Your task to perform on an android device: toggle javascript in the chrome app Image 0: 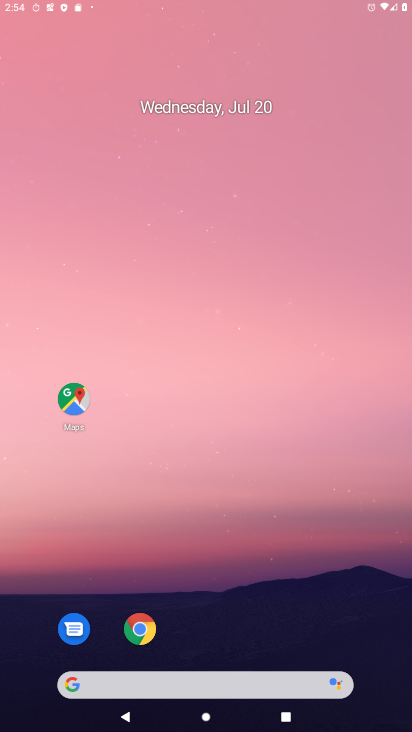
Step 0: press home button
Your task to perform on an android device: toggle javascript in the chrome app Image 1: 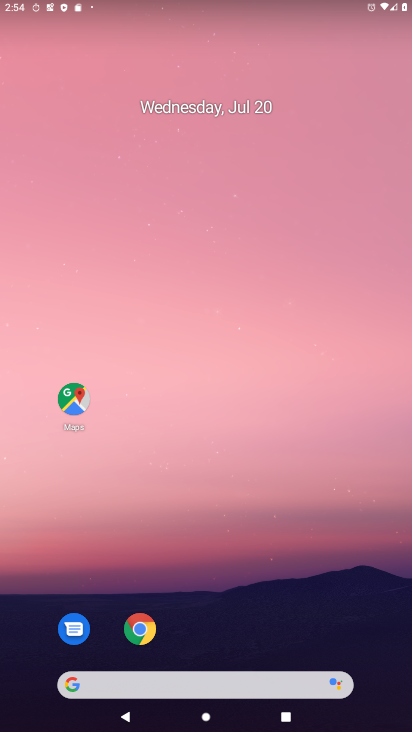
Step 1: click (139, 623)
Your task to perform on an android device: toggle javascript in the chrome app Image 2: 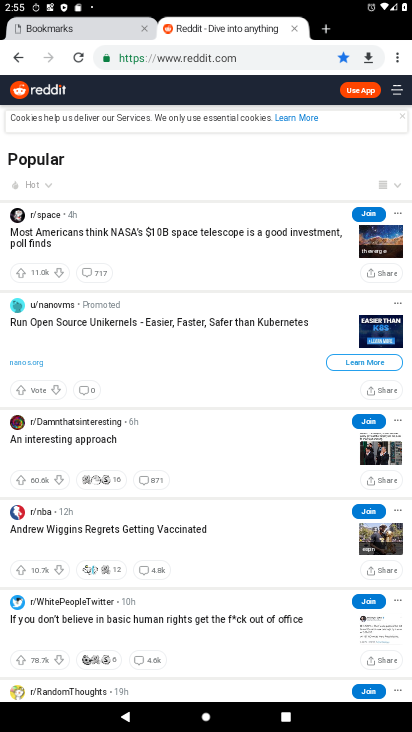
Step 2: click (399, 58)
Your task to perform on an android device: toggle javascript in the chrome app Image 3: 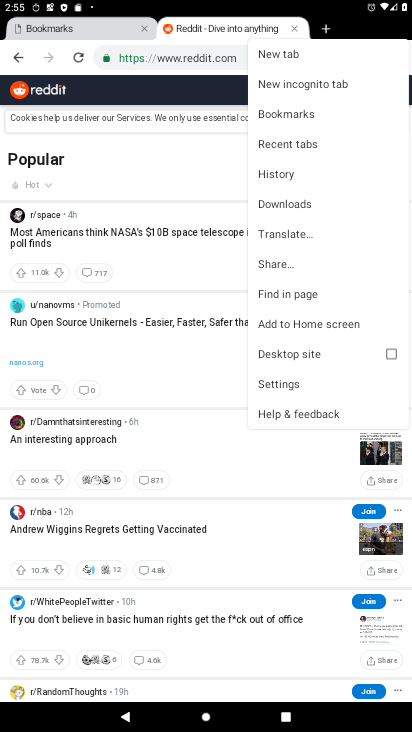
Step 3: click (305, 384)
Your task to perform on an android device: toggle javascript in the chrome app Image 4: 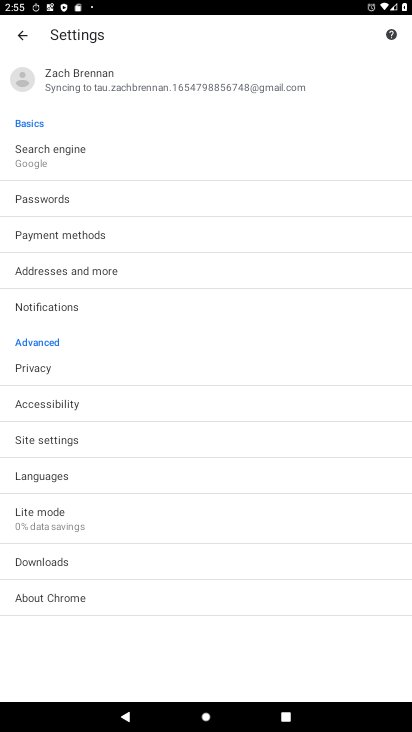
Step 4: click (94, 436)
Your task to perform on an android device: toggle javascript in the chrome app Image 5: 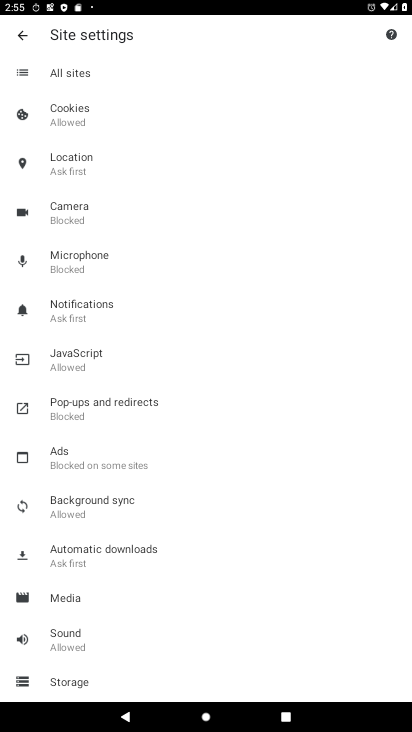
Step 5: click (114, 357)
Your task to perform on an android device: toggle javascript in the chrome app Image 6: 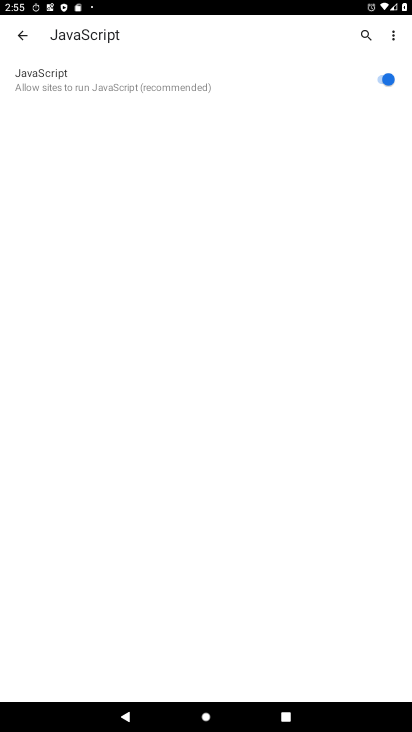
Step 6: task complete